Your task to perform on an android device: change notification settings in the gmail app Image 0: 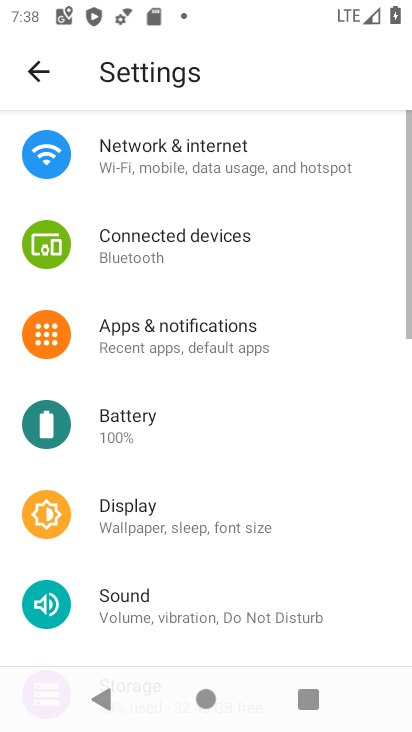
Step 0: press home button
Your task to perform on an android device: change notification settings in the gmail app Image 1: 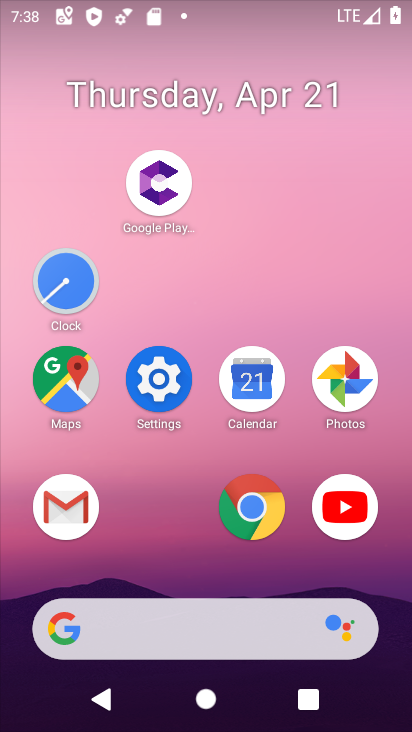
Step 1: click (69, 499)
Your task to perform on an android device: change notification settings in the gmail app Image 2: 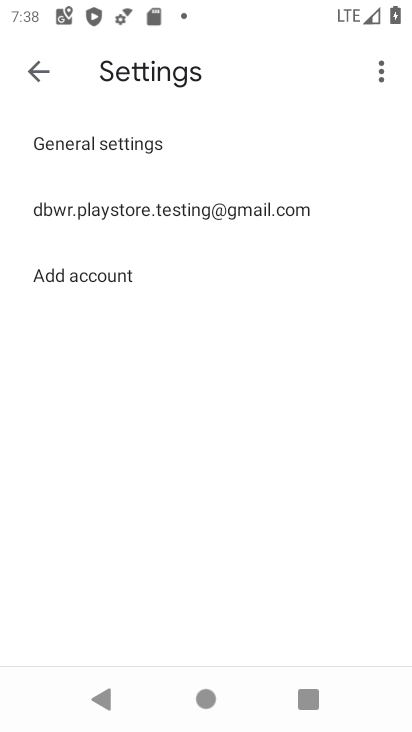
Step 2: click (101, 143)
Your task to perform on an android device: change notification settings in the gmail app Image 3: 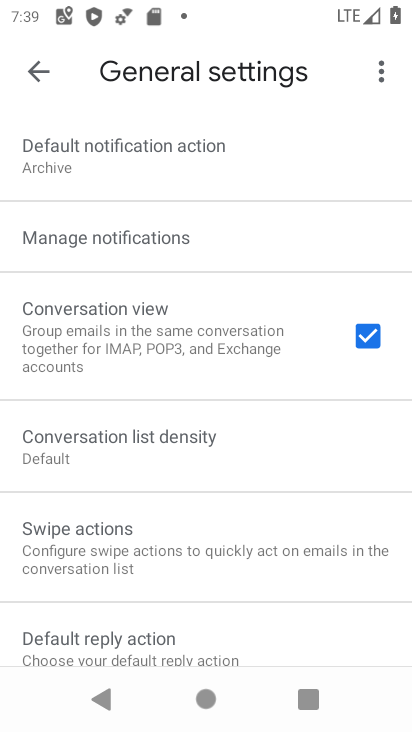
Step 3: click (137, 235)
Your task to perform on an android device: change notification settings in the gmail app Image 4: 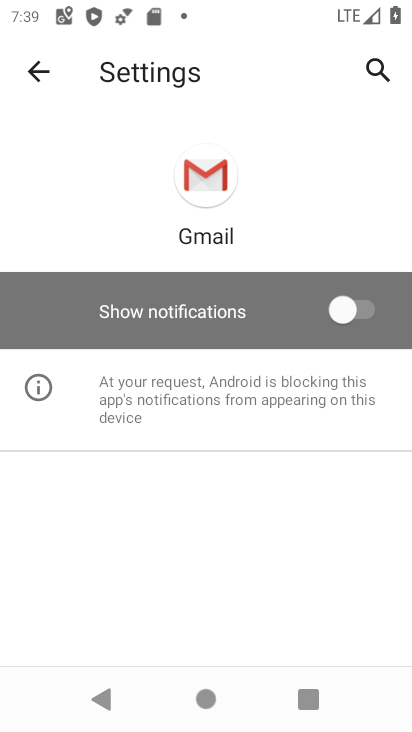
Step 4: click (339, 314)
Your task to perform on an android device: change notification settings in the gmail app Image 5: 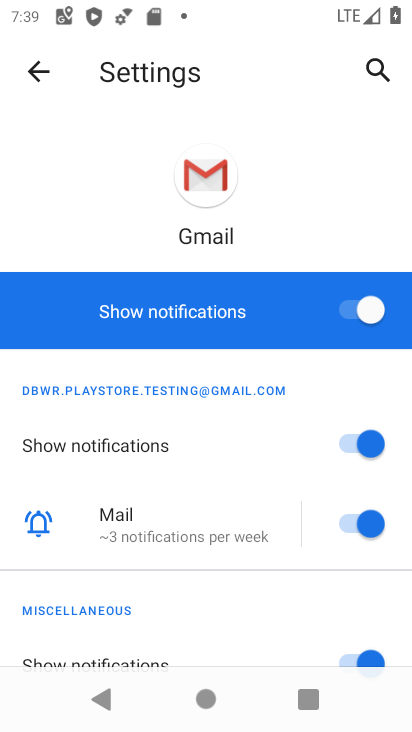
Step 5: task complete